Your task to perform on an android device: What is the capital of China? Image 0: 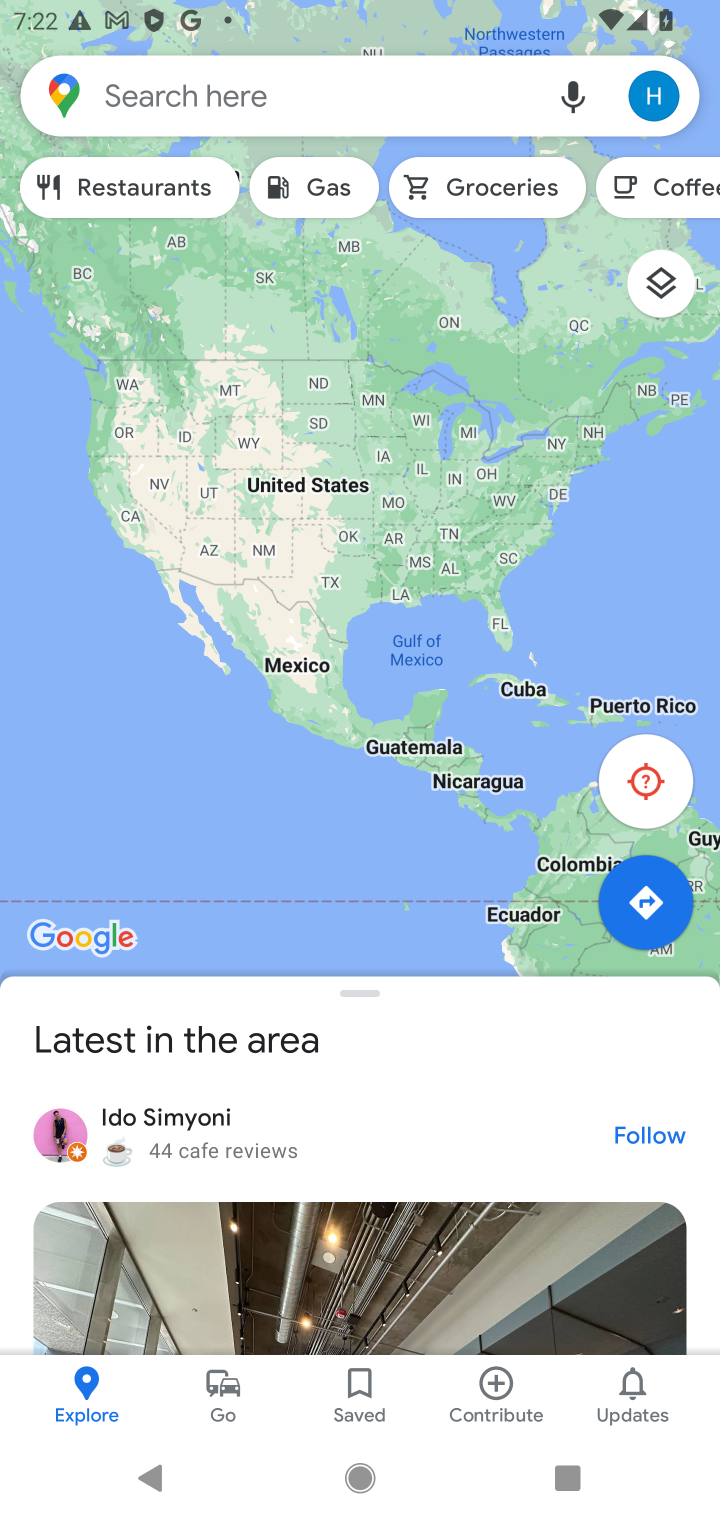
Step 0: press home button
Your task to perform on an android device: What is the capital of China? Image 1: 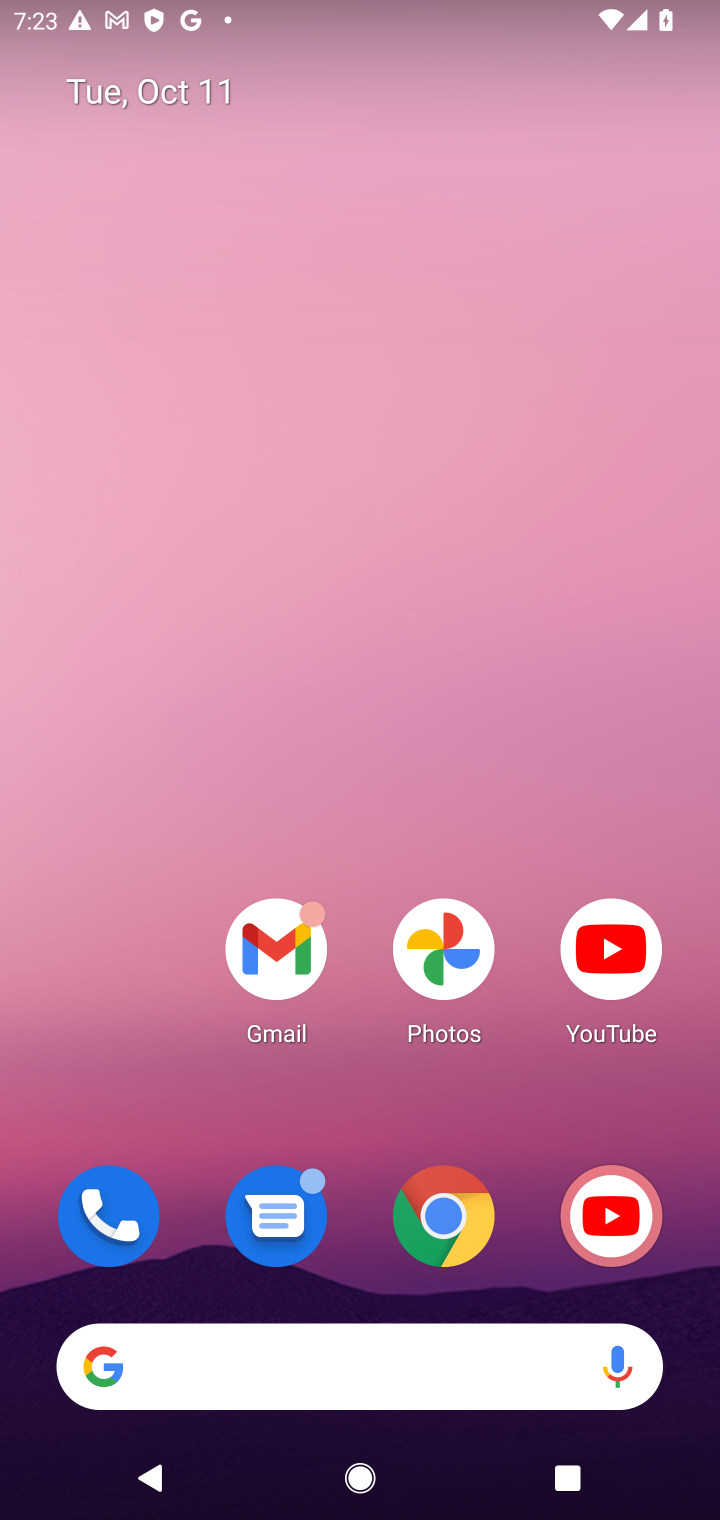
Step 1: click (450, 1216)
Your task to perform on an android device: What is the capital of China? Image 2: 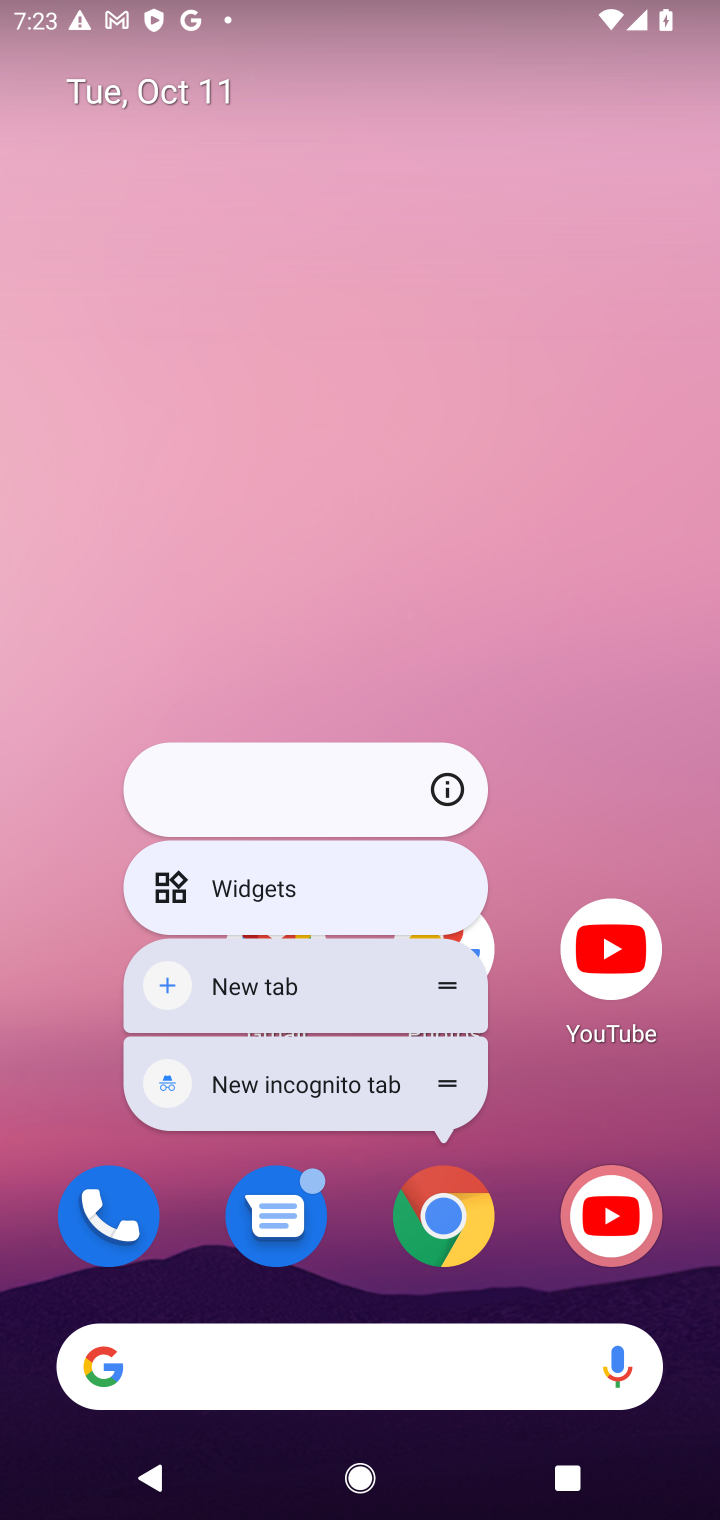
Step 2: click (450, 1216)
Your task to perform on an android device: What is the capital of China? Image 3: 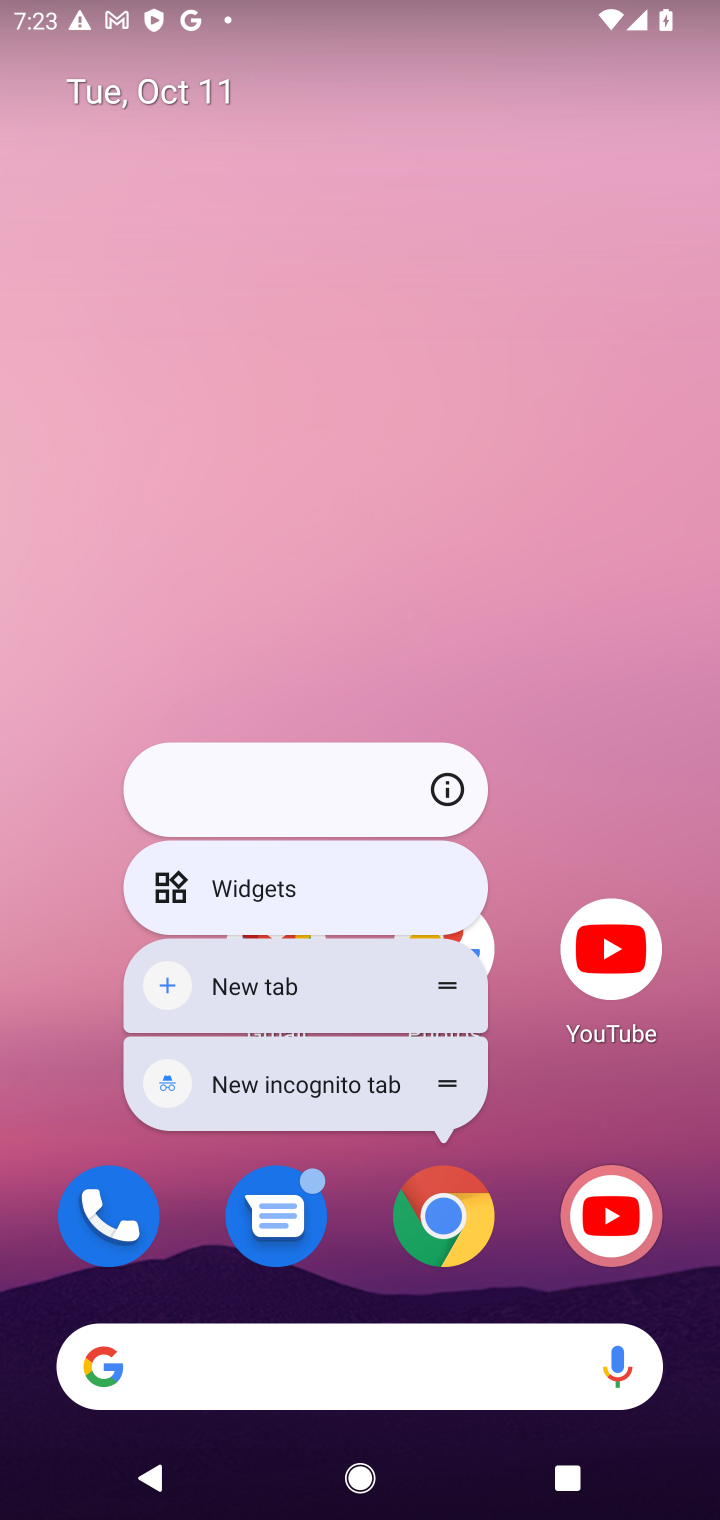
Step 3: click (450, 1216)
Your task to perform on an android device: What is the capital of China? Image 4: 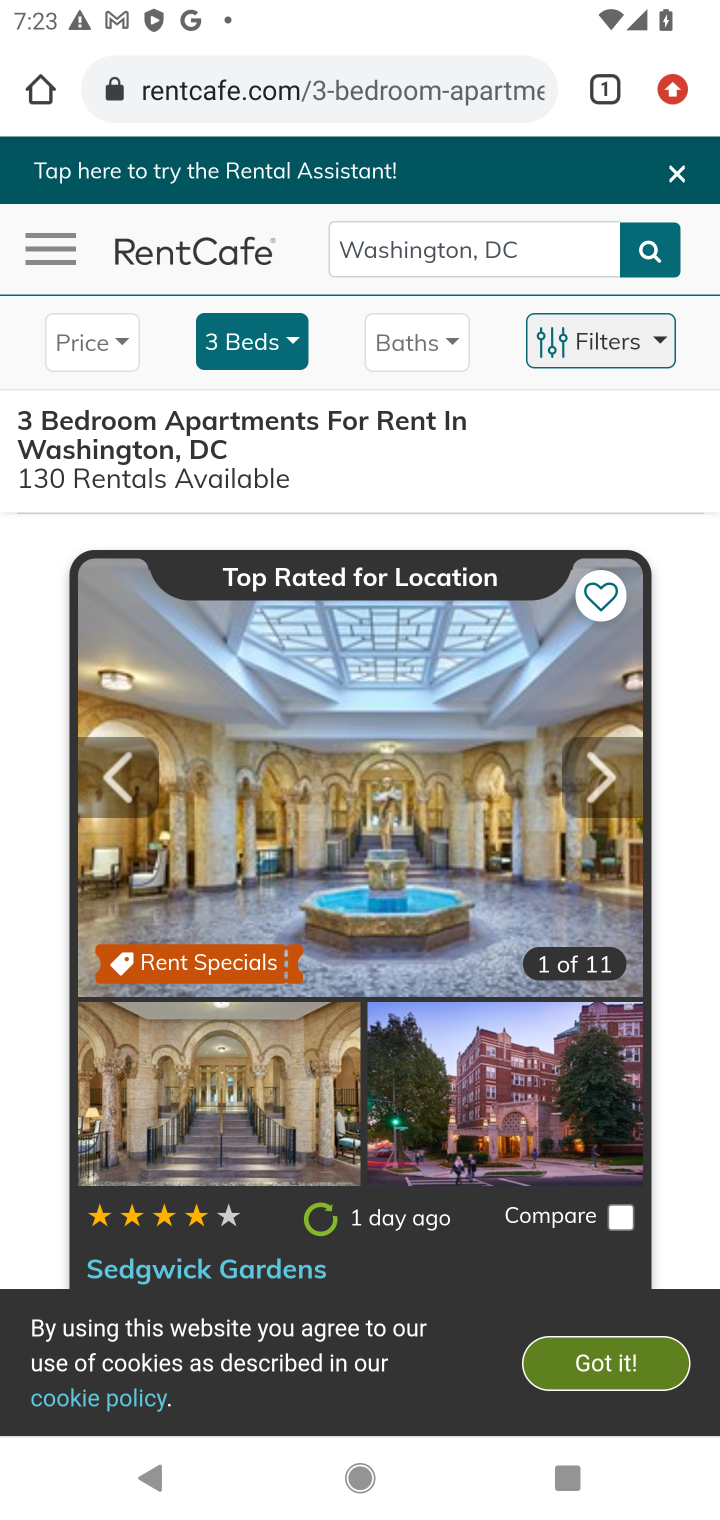
Step 4: click (295, 77)
Your task to perform on an android device: What is the capital of China? Image 5: 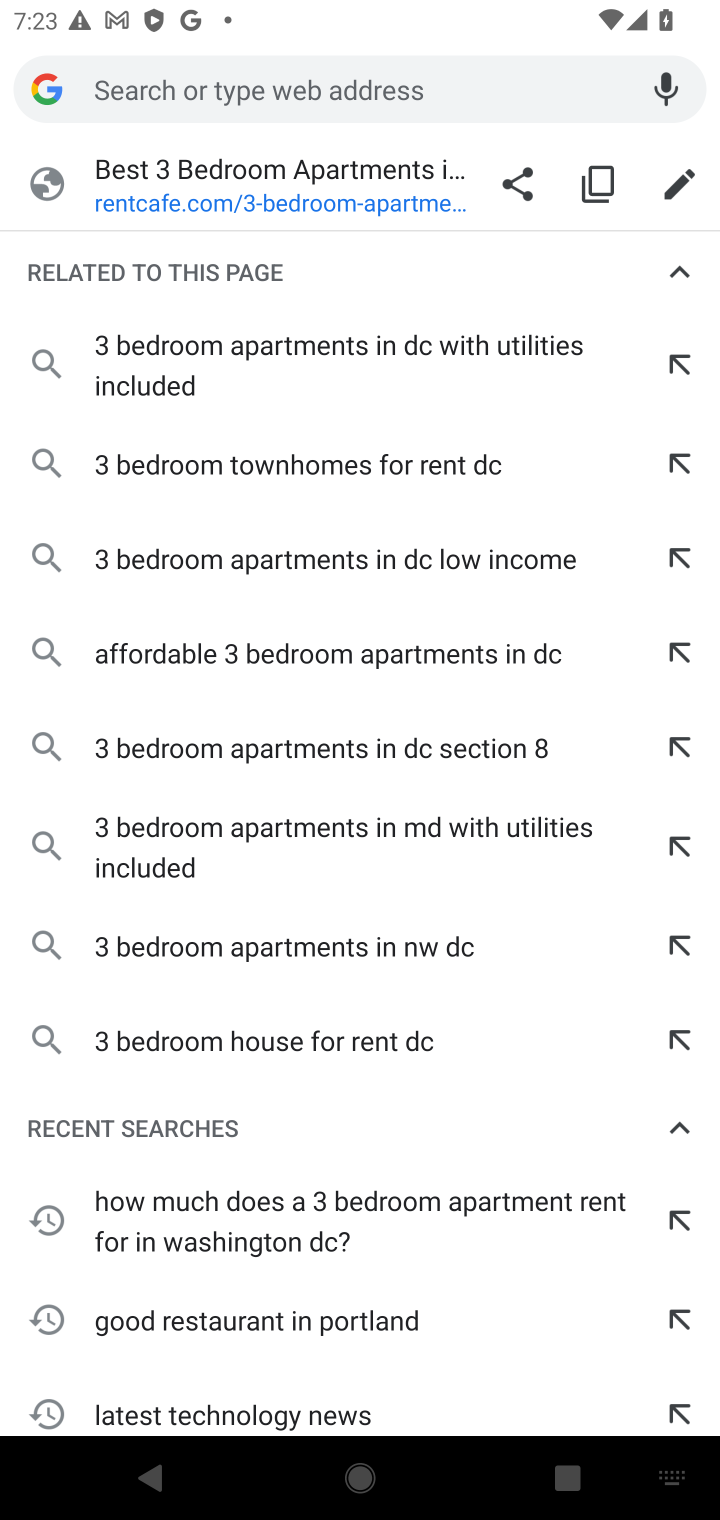
Step 5: type "capital of china"
Your task to perform on an android device: What is the capital of China? Image 6: 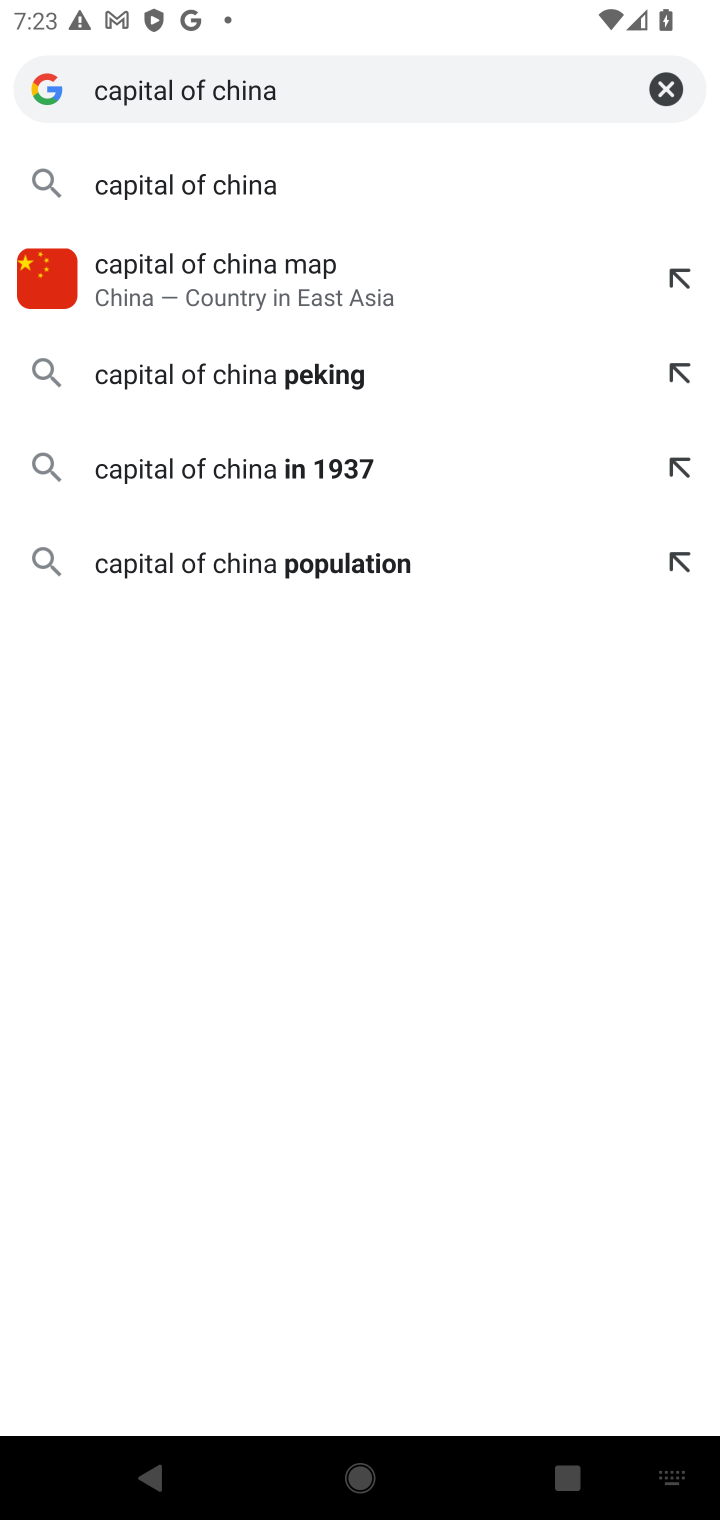
Step 6: press enter
Your task to perform on an android device: What is the capital of China? Image 7: 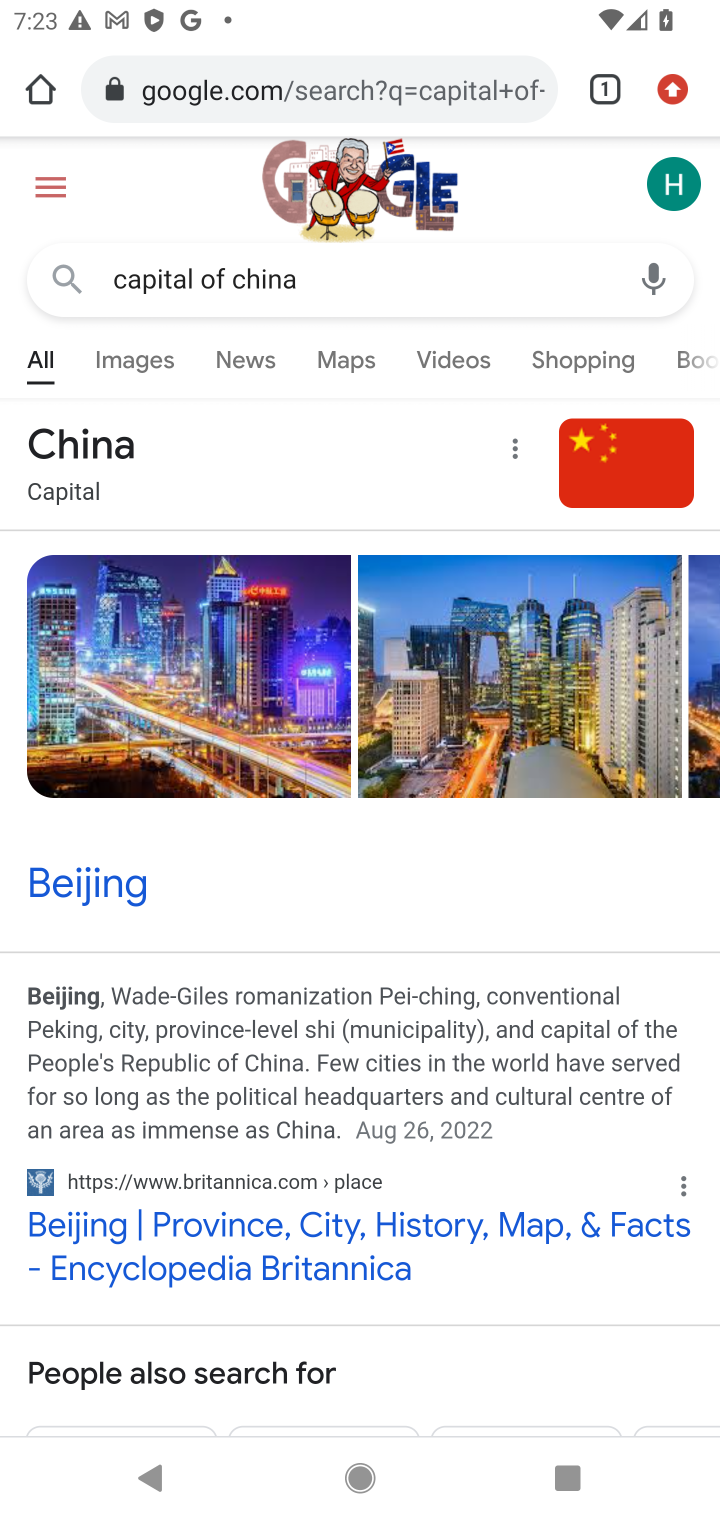
Step 7: task complete